Your task to perform on an android device: allow cookies in the chrome app Image 0: 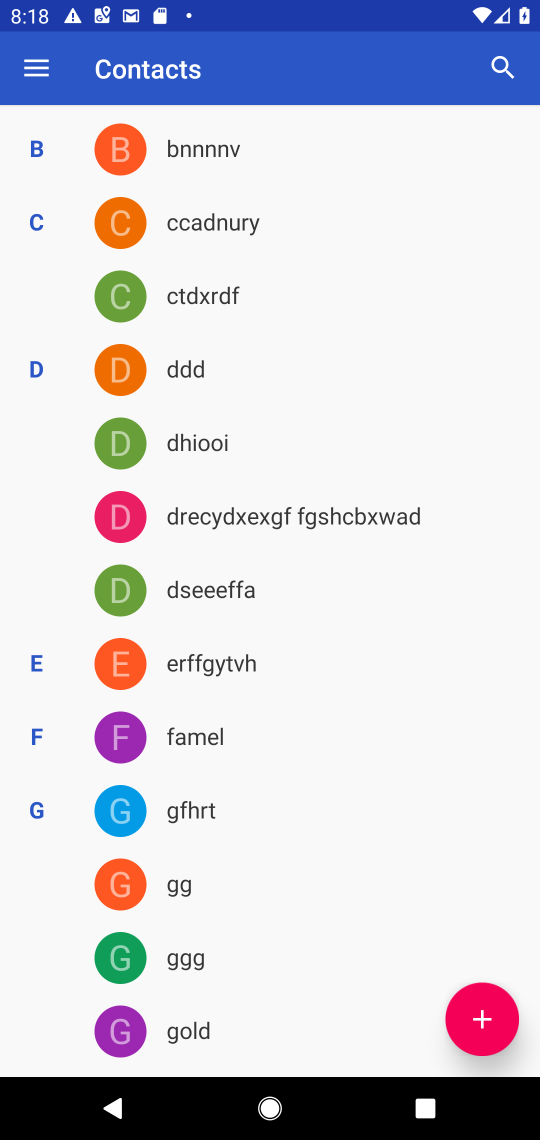
Step 0: press home button
Your task to perform on an android device: allow cookies in the chrome app Image 1: 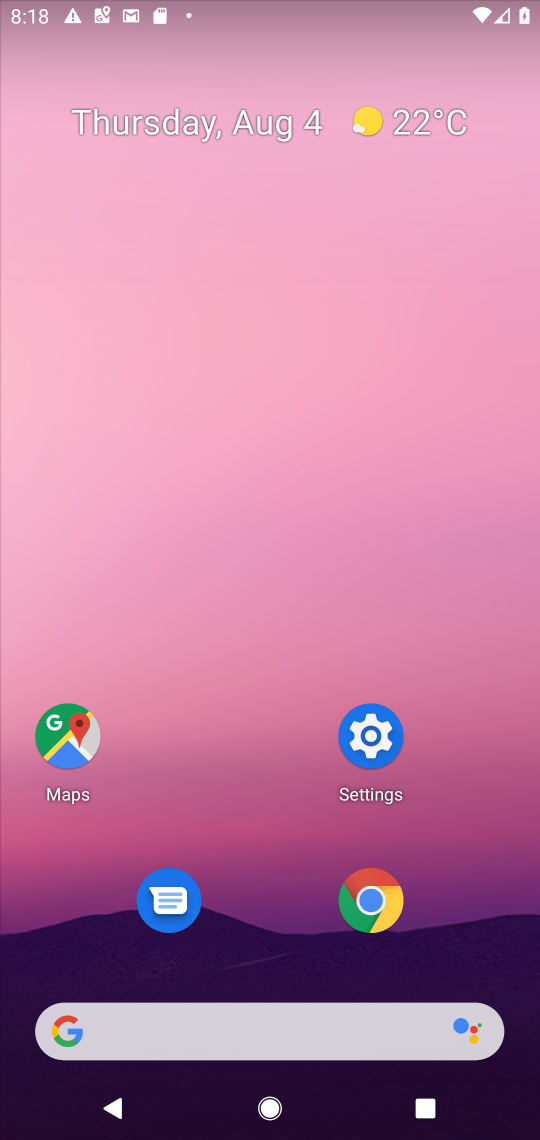
Step 1: click (372, 907)
Your task to perform on an android device: allow cookies in the chrome app Image 2: 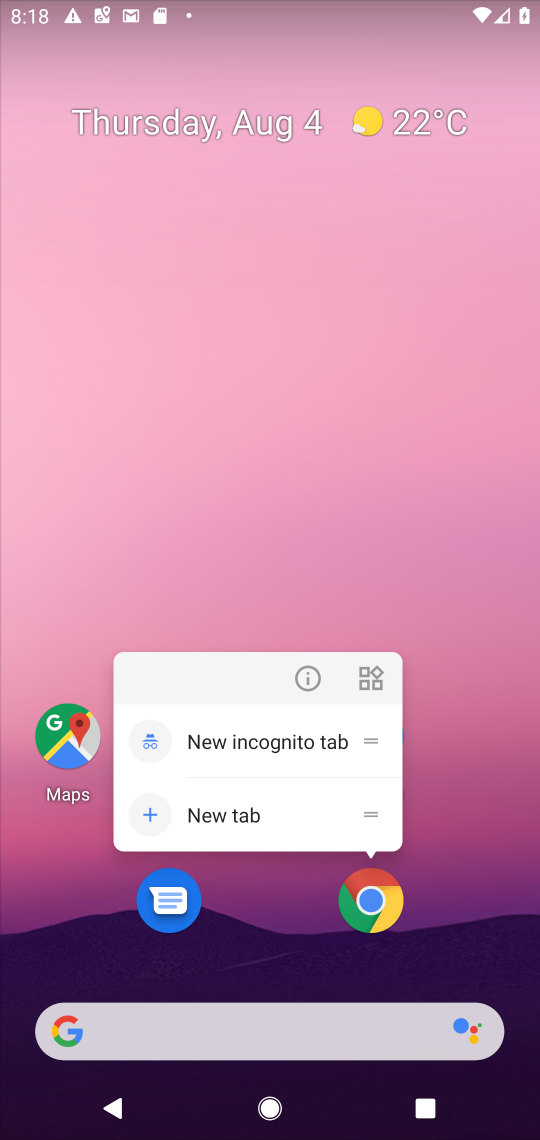
Step 2: click (359, 903)
Your task to perform on an android device: allow cookies in the chrome app Image 3: 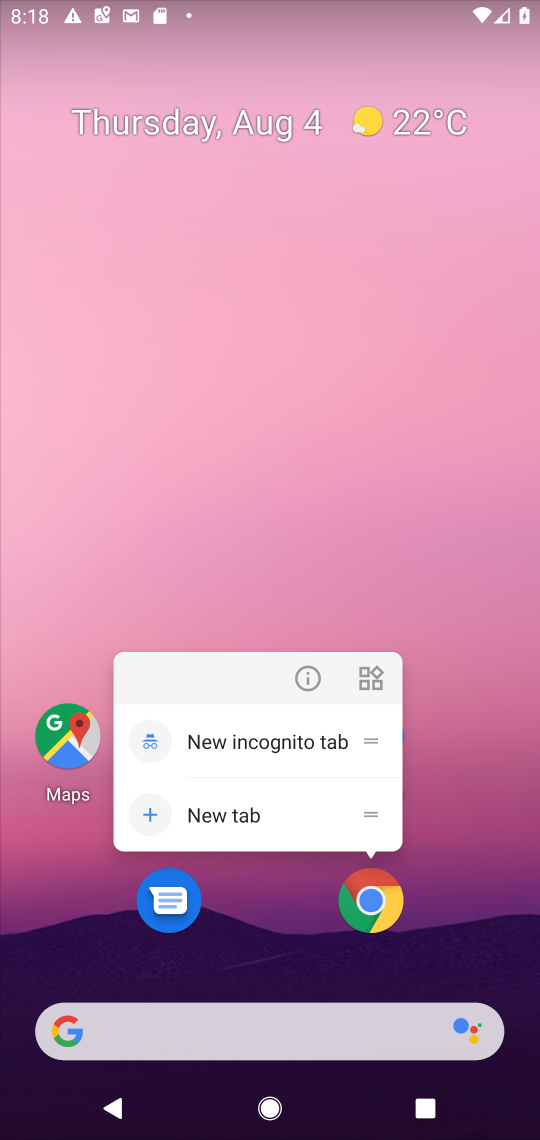
Step 3: click (359, 903)
Your task to perform on an android device: allow cookies in the chrome app Image 4: 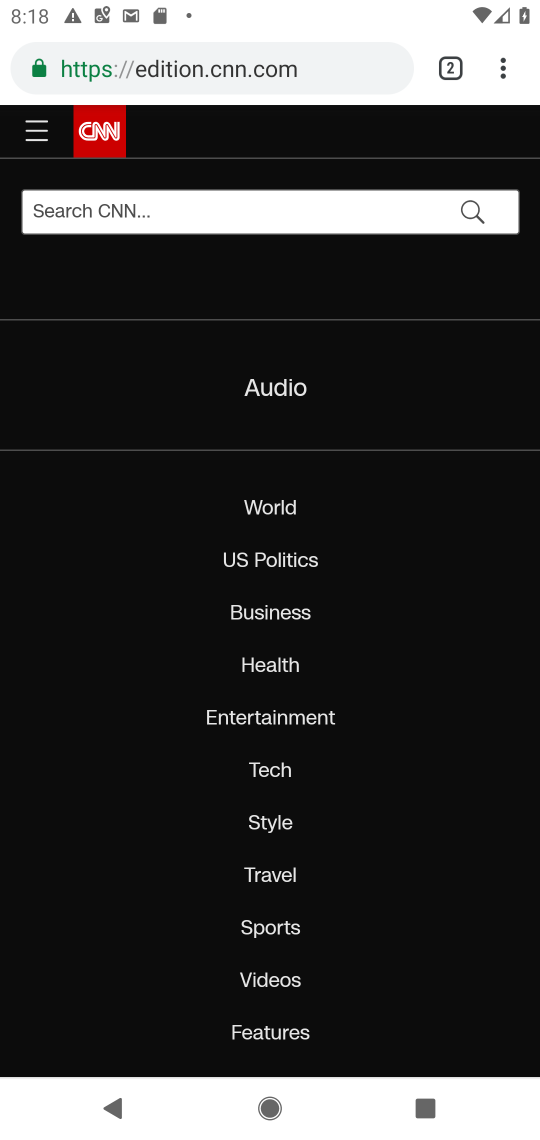
Step 4: drag from (504, 68) to (376, 890)
Your task to perform on an android device: allow cookies in the chrome app Image 5: 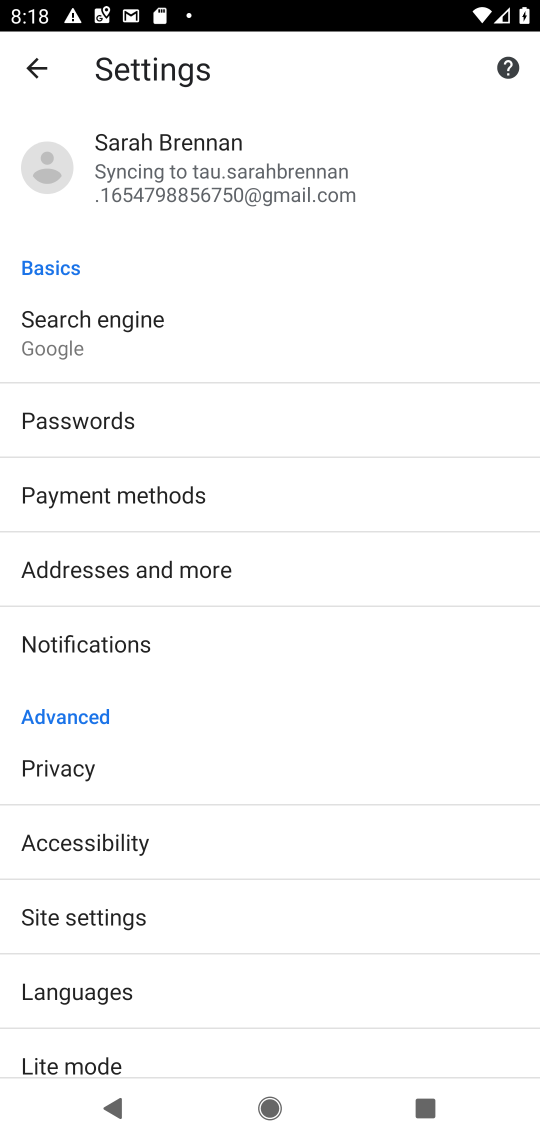
Step 5: click (118, 920)
Your task to perform on an android device: allow cookies in the chrome app Image 6: 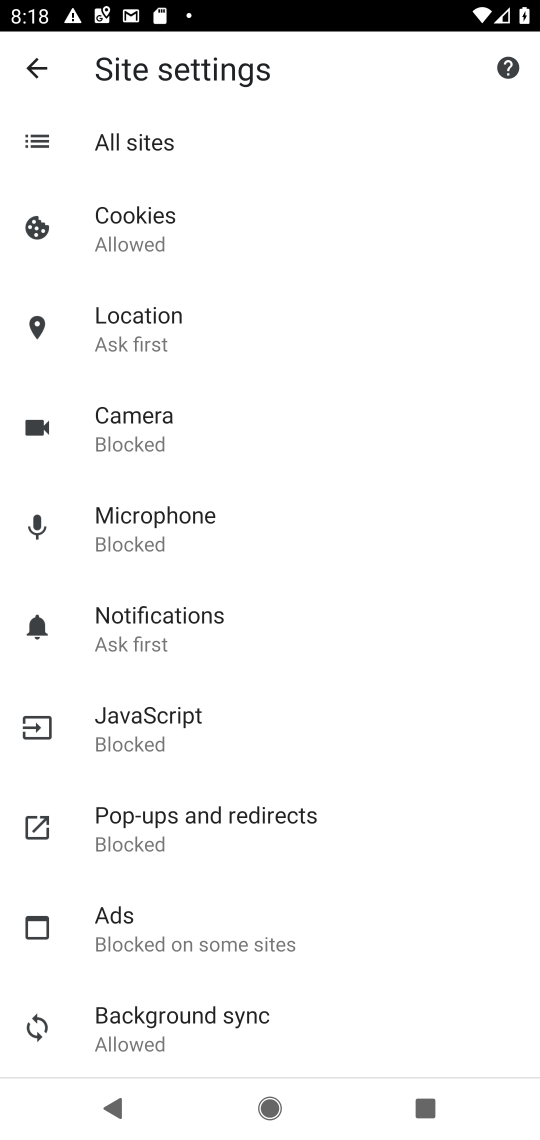
Step 6: click (136, 223)
Your task to perform on an android device: allow cookies in the chrome app Image 7: 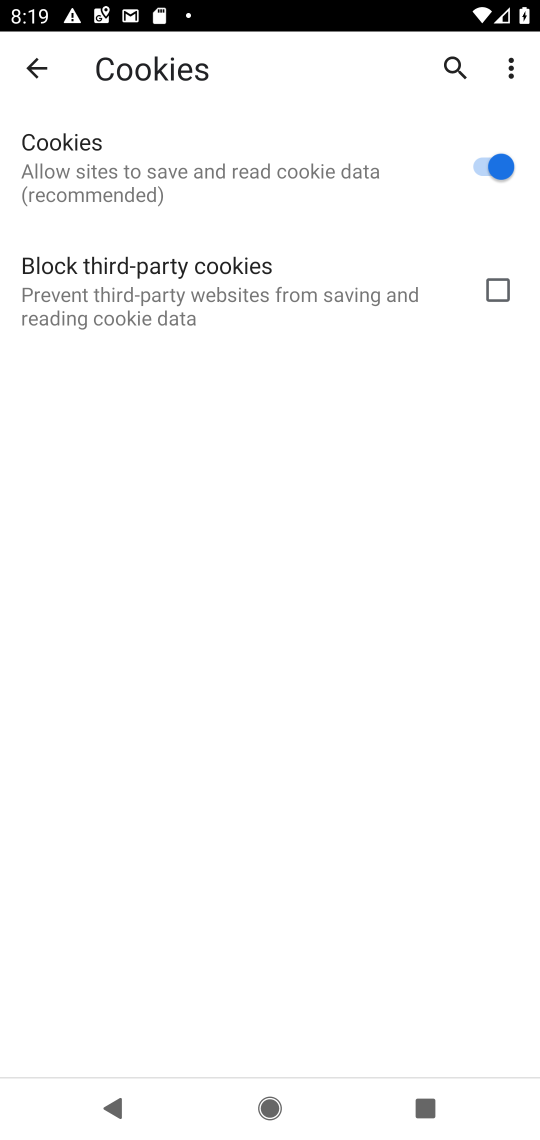
Step 7: task complete